Your task to perform on an android device: Open sound settings Image 0: 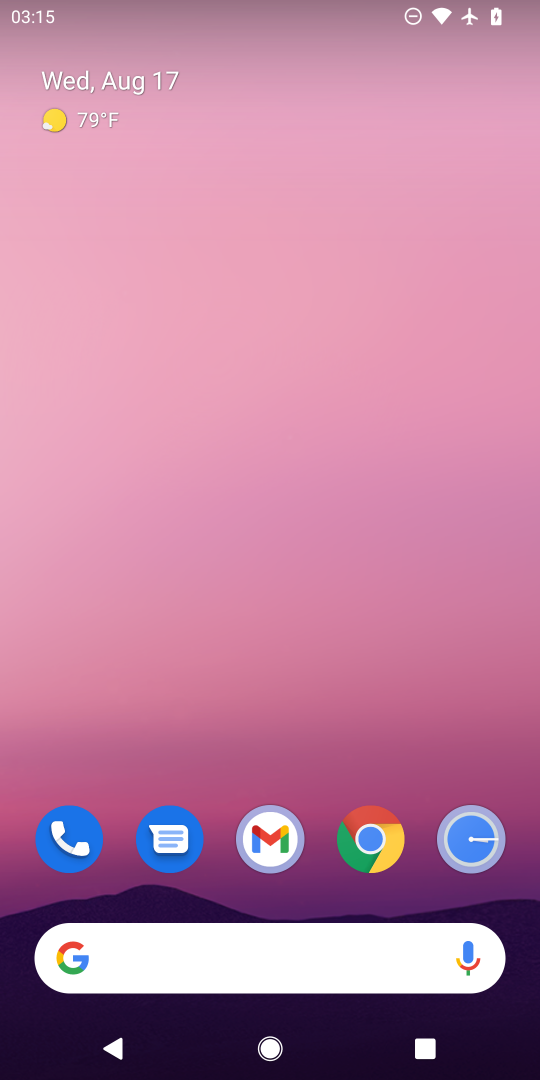
Step 0: drag from (320, 764) to (289, 110)
Your task to perform on an android device: Open sound settings Image 1: 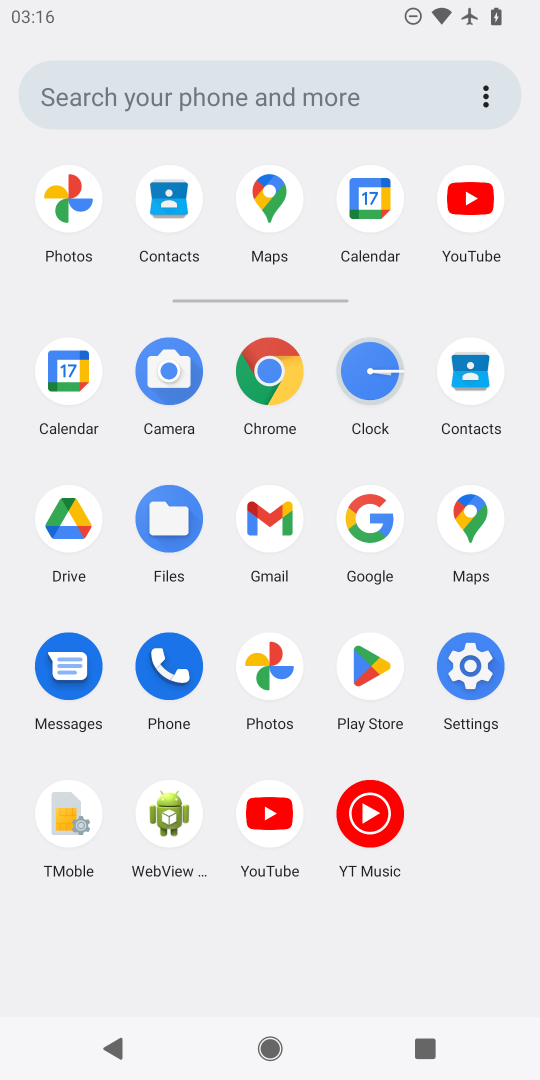
Step 1: click (475, 668)
Your task to perform on an android device: Open sound settings Image 2: 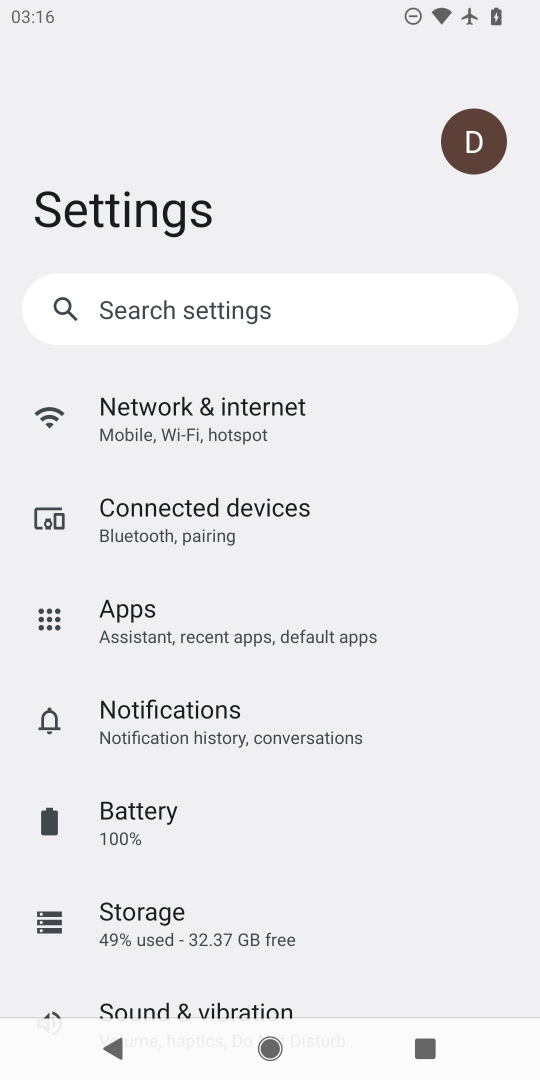
Step 2: drag from (155, 934) to (186, 525)
Your task to perform on an android device: Open sound settings Image 3: 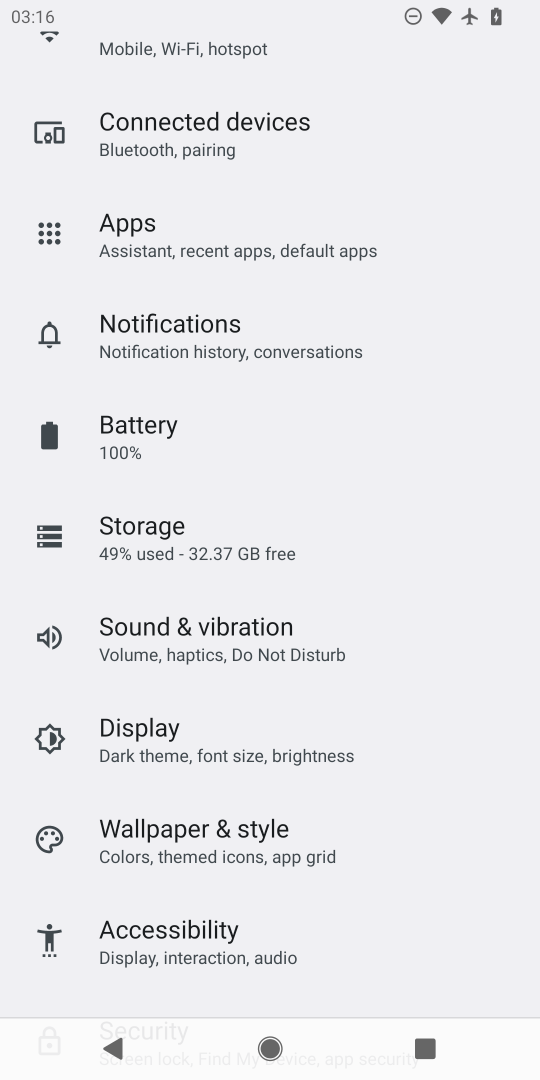
Step 3: click (159, 632)
Your task to perform on an android device: Open sound settings Image 4: 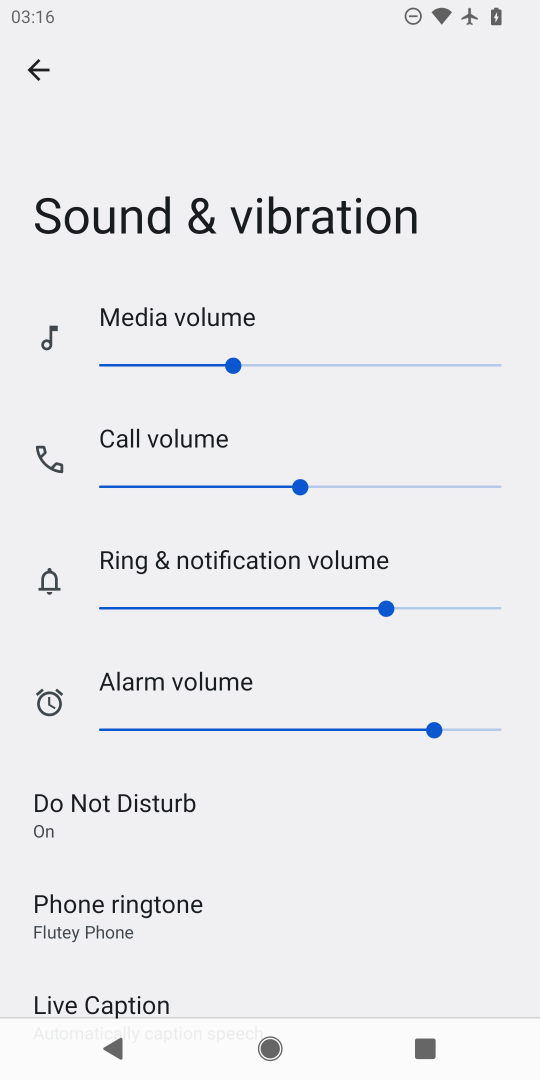
Step 4: task complete